Your task to perform on an android device: Open Google Maps and go to "Timeline" Image 0: 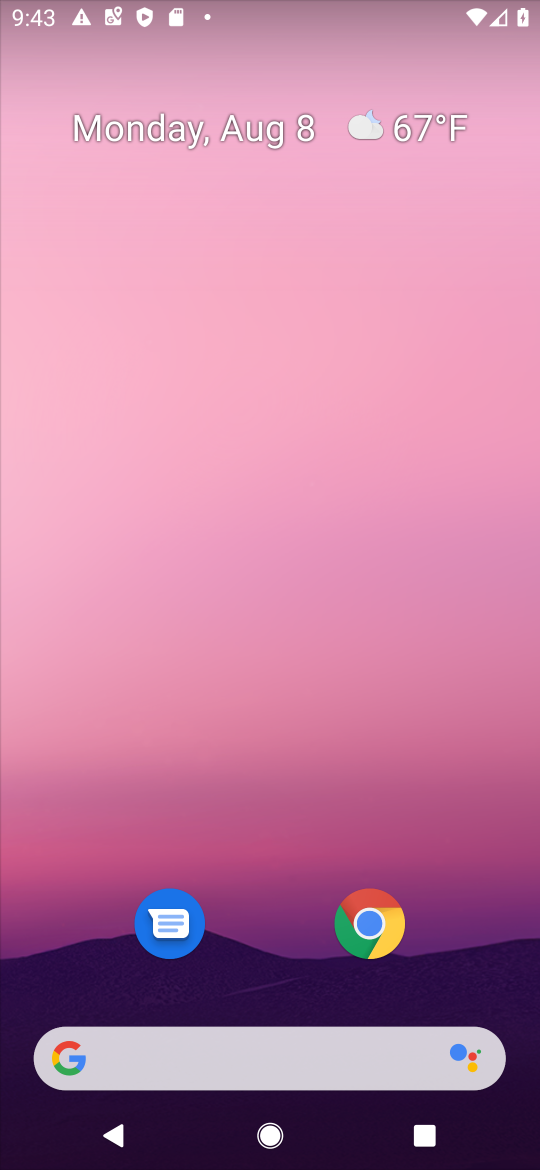
Step 0: drag from (71, 1123) to (389, 210)
Your task to perform on an android device: Open Google Maps and go to "Timeline" Image 1: 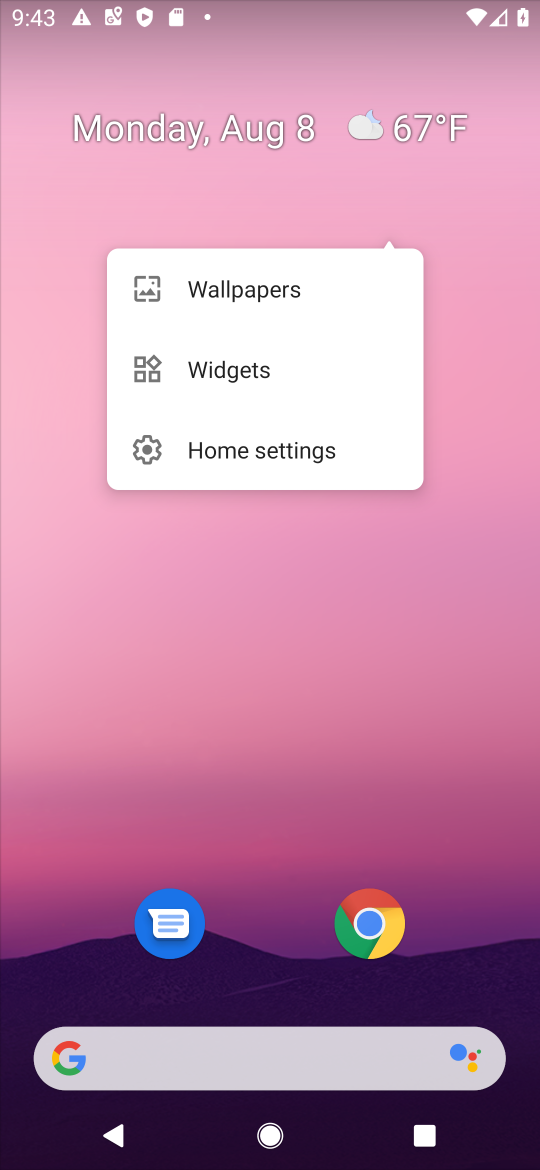
Step 1: drag from (23, 1098) to (457, 224)
Your task to perform on an android device: Open Google Maps and go to "Timeline" Image 2: 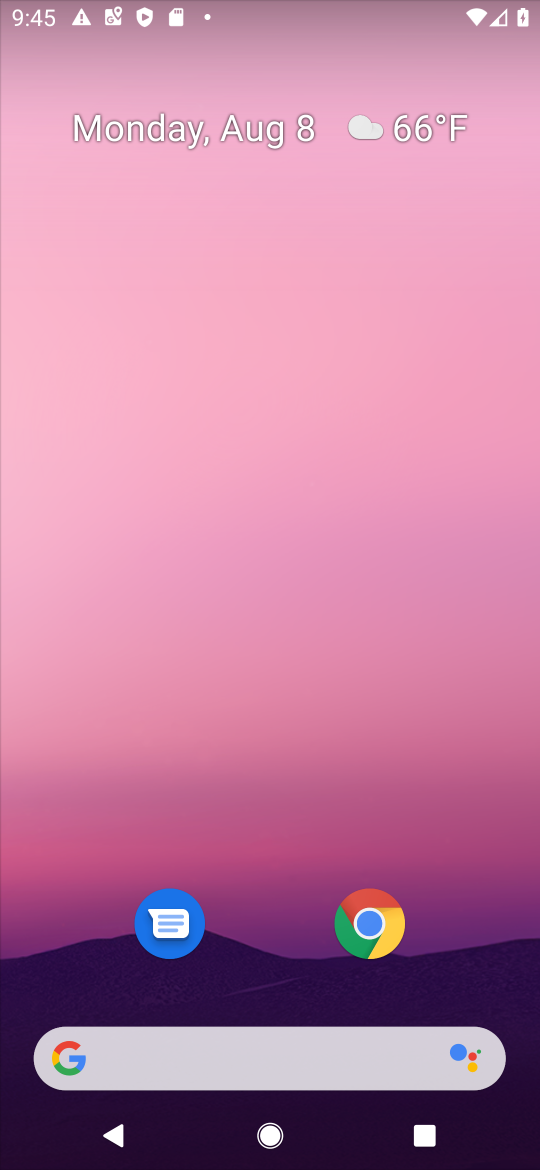
Step 2: drag from (98, 357) to (114, 295)
Your task to perform on an android device: Open Google Maps and go to "Timeline" Image 3: 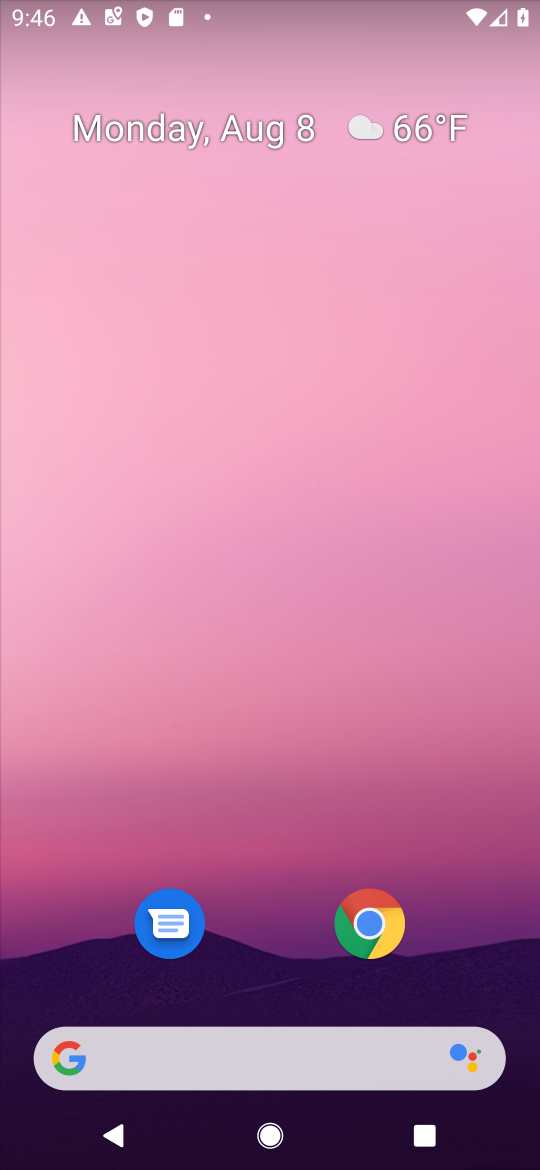
Step 3: drag from (59, 1110) to (261, 240)
Your task to perform on an android device: Open Google Maps and go to "Timeline" Image 4: 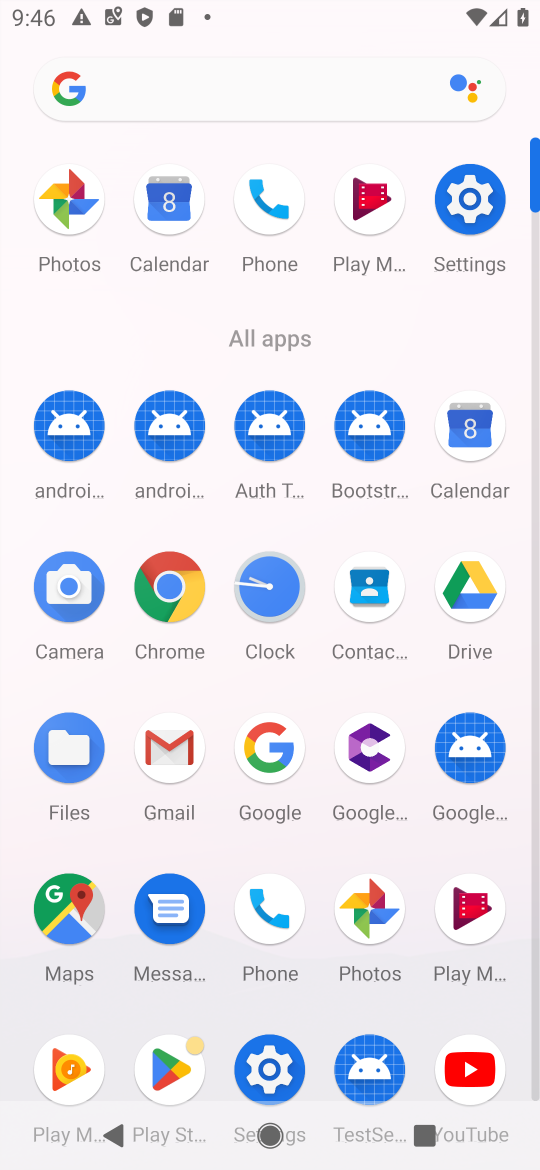
Step 4: click (50, 935)
Your task to perform on an android device: Open Google Maps and go to "Timeline" Image 5: 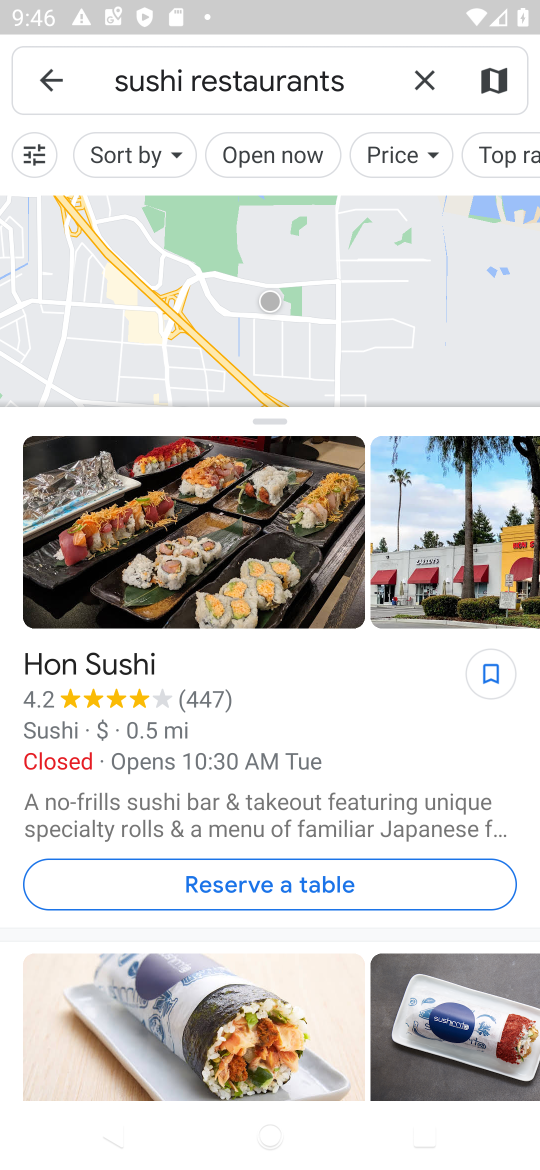
Step 5: click (53, 90)
Your task to perform on an android device: Open Google Maps and go to "Timeline" Image 6: 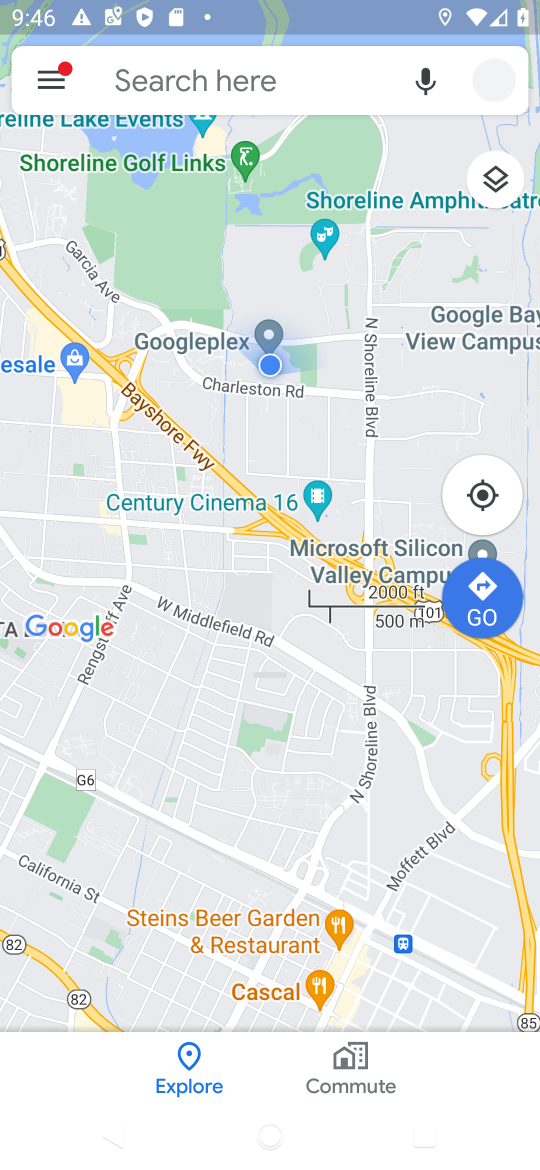
Step 6: click (52, 74)
Your task to perform on an android device: Open Google Maps and go to "Timeline" Image 7: 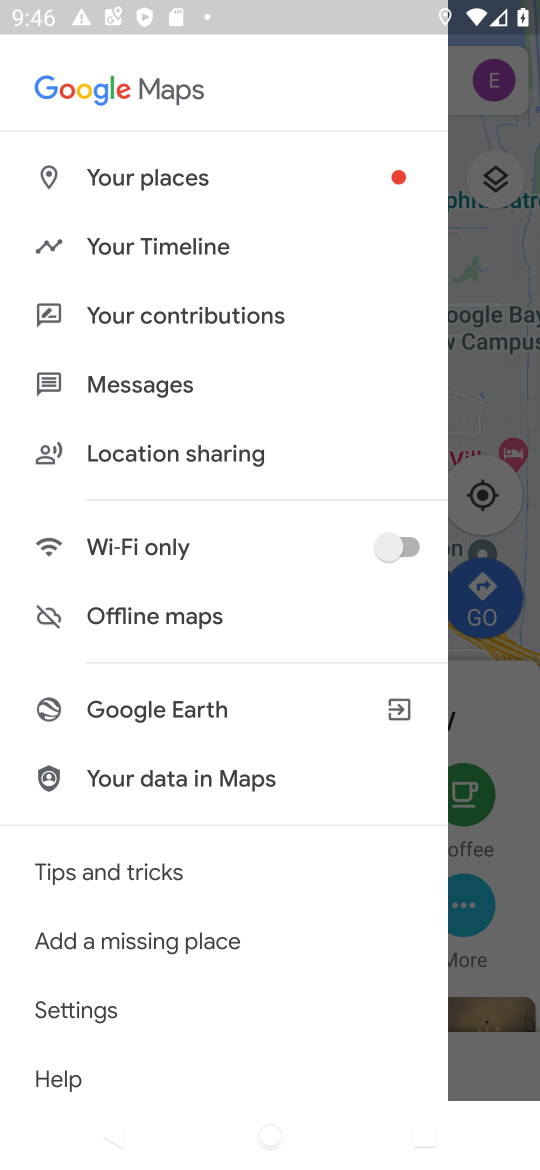
Step 7: click (157, 245)
Your task to perform on an android device: Open Google Maps and go to "Timeline" Image 8: 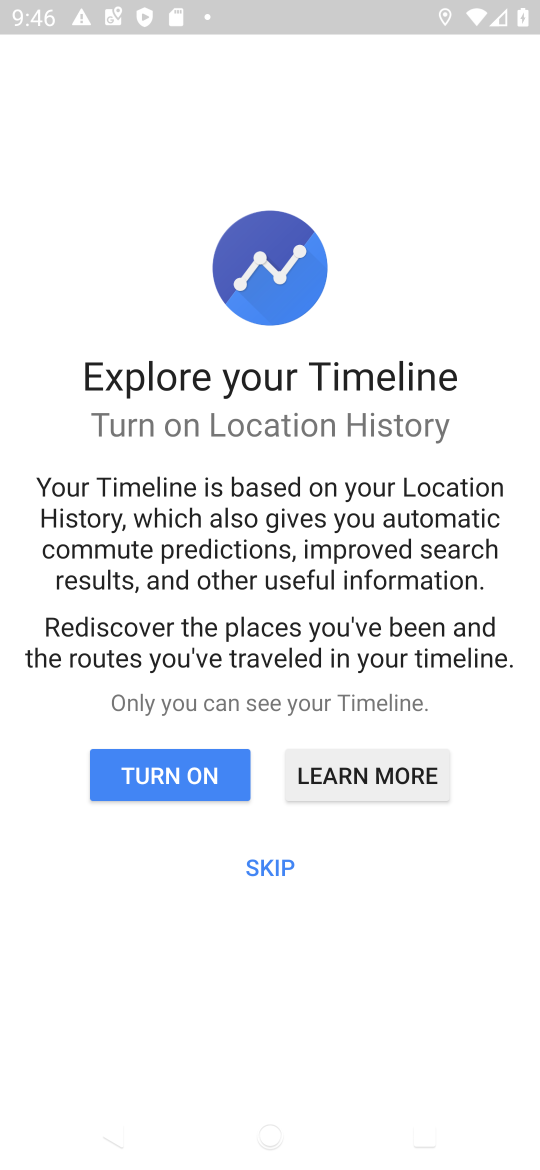
Step 8: click (271, 858)
Your task to perform on an android device: Open Google Maps and go to "Timeline" Image 9: 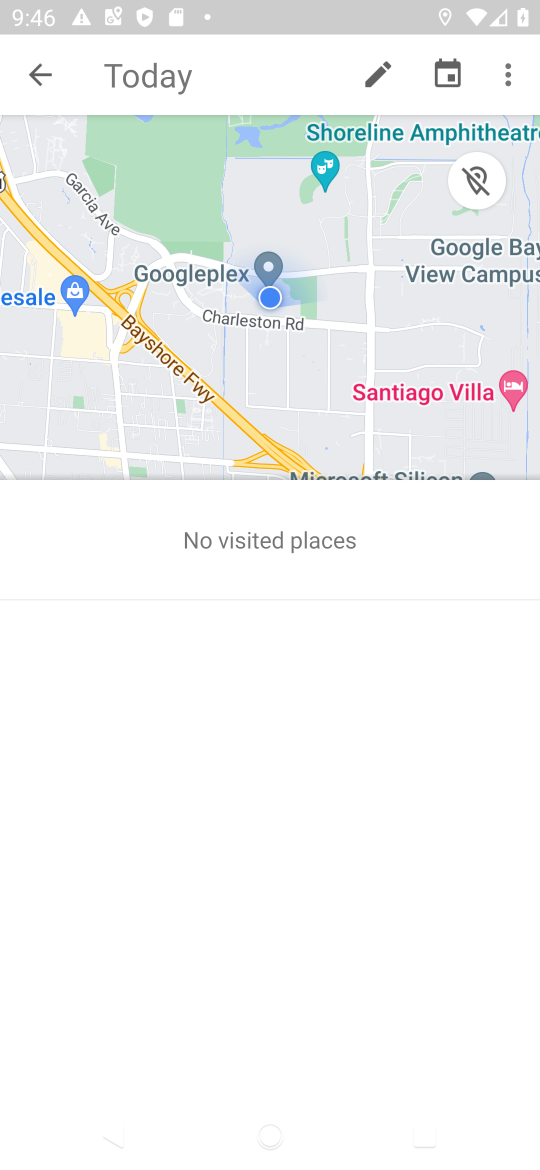
Step 9: task complete